Your task to perform on an android device: Open Google Chrome and click the shortcut for Amazon.com Image 0: 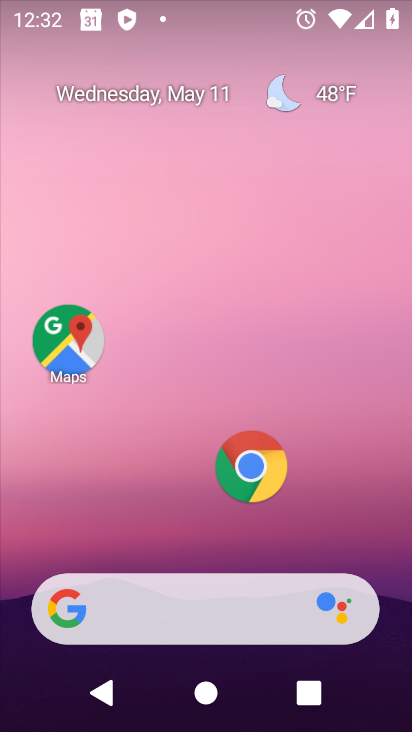
Step 0: click (258, 476)
Your task to perform on an android device: Open Google Chrome and click the shortcut for Amazon.com Image 1: 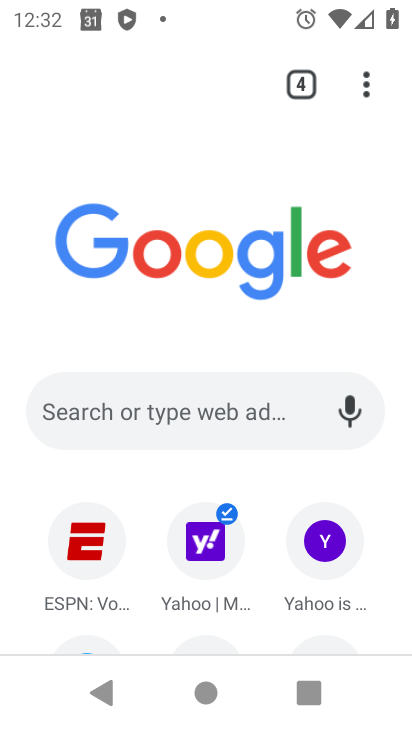
Step 1: drag from (195, 595) to (281, 204)
Your task to perform on an android device: Open Google Chrome and click the shortcut for Amazon.com Image 2: 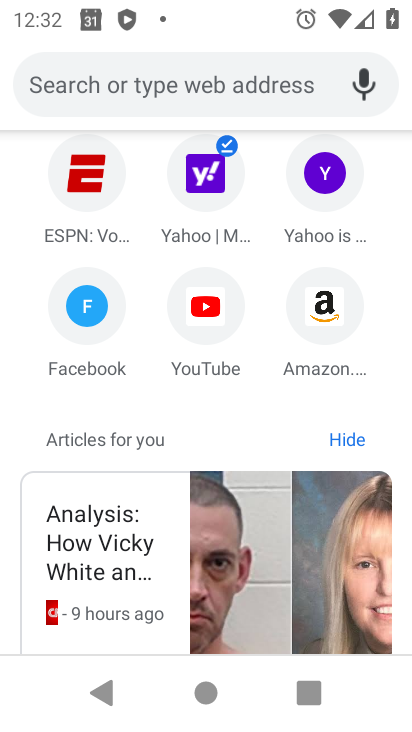
Step 2: click (325, 311)
Your task to perform on an android device: Open Google Chrome and click the shortcut for Amazon.com Image 3: 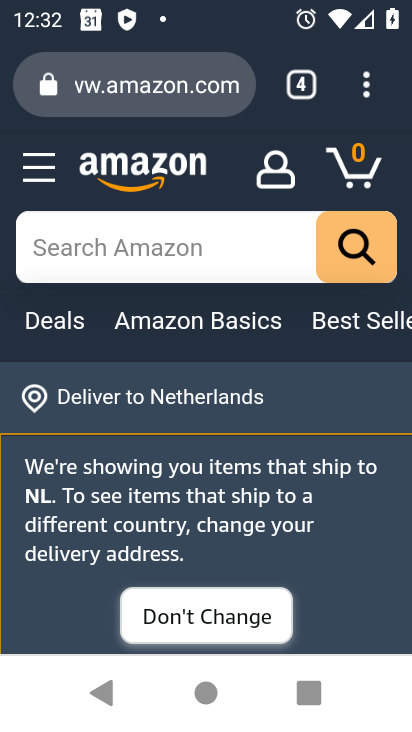
Step 3: task complete